Your task to perform on an android device: change timer sound Image 0: 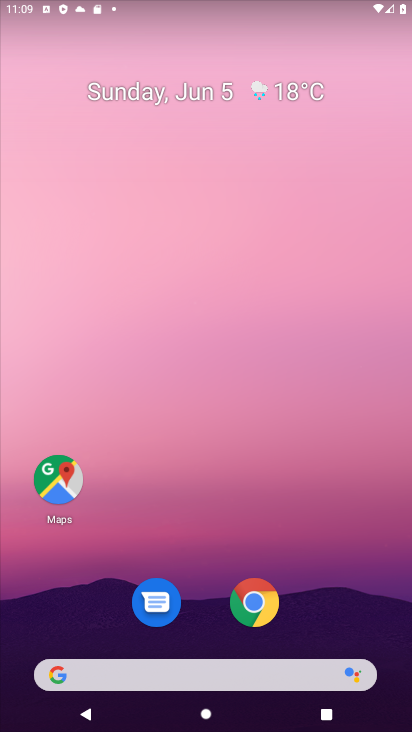
Step 0: task complete